Your task to perform on an android device: open chrome and create a bookmark for the current page Image 0: 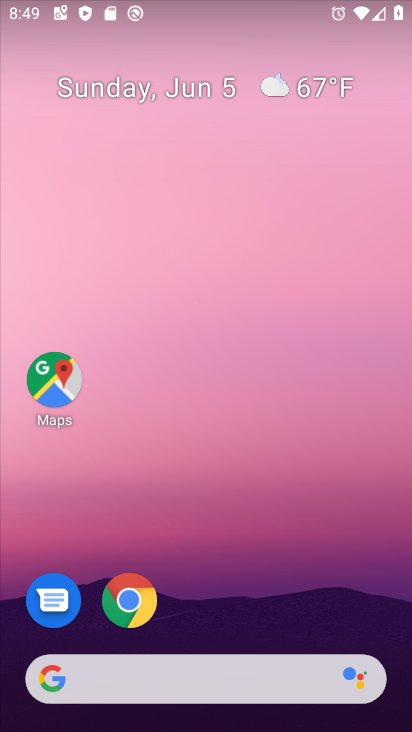
Step 0: drag from (387, 682) to (297, 82)
Your task to perform on an android device: open chrome and create a bookmark for the current page Image 1: 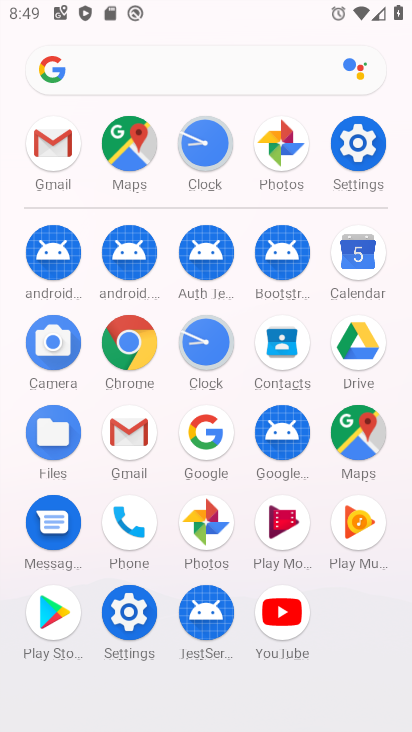
Step 1: click (140, 344)
Your task to perform on an android device: open chrome and create a bookmark for the current page Image 2: 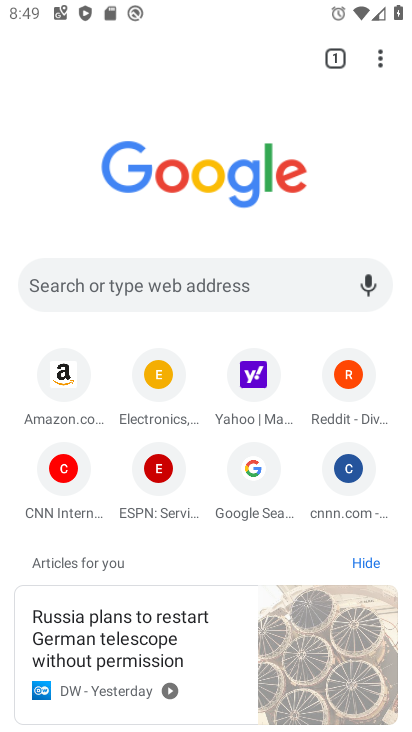
Step 2: click (387, 59)
Your task to perform on an android device: open chrome and create a bookmark for the current page Image 3: 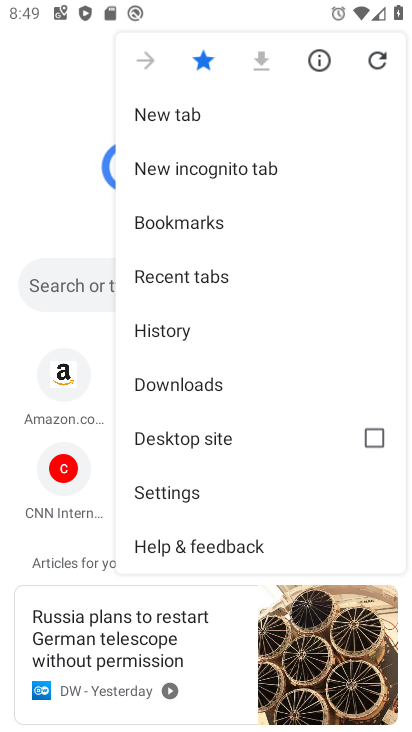
Step 3: task complete